Your task to perform on an android device: refresh tabs in the chrome app Image 0: 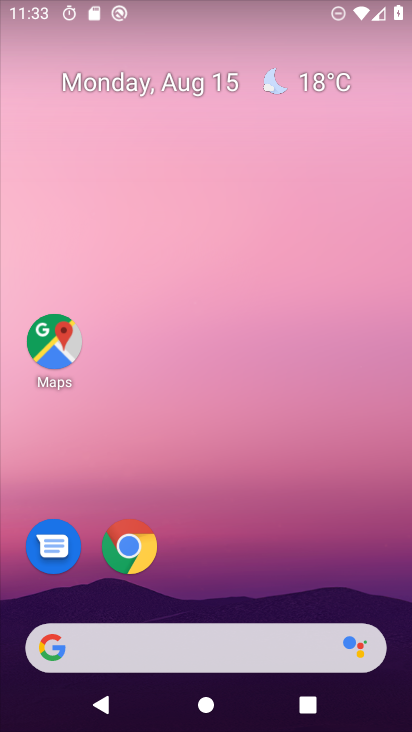
Step 0: click (137, 549)
Your task to perform on an android device: refresh tabs in the chrome app Image 1: 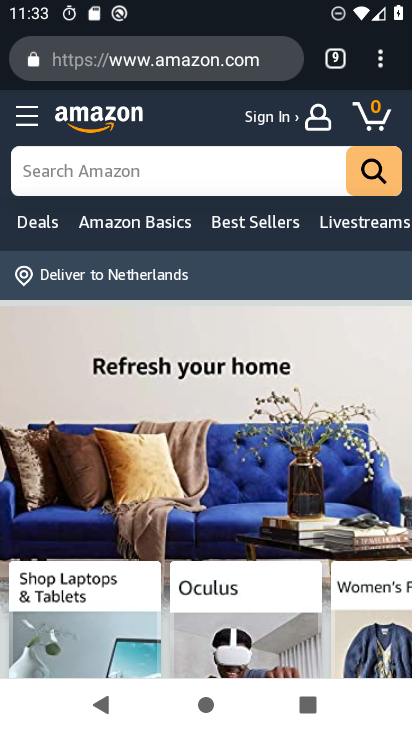
Step 1: click (383, 68)
Your task to perform on an android device: refresh tabs in the chrome app Image 2: 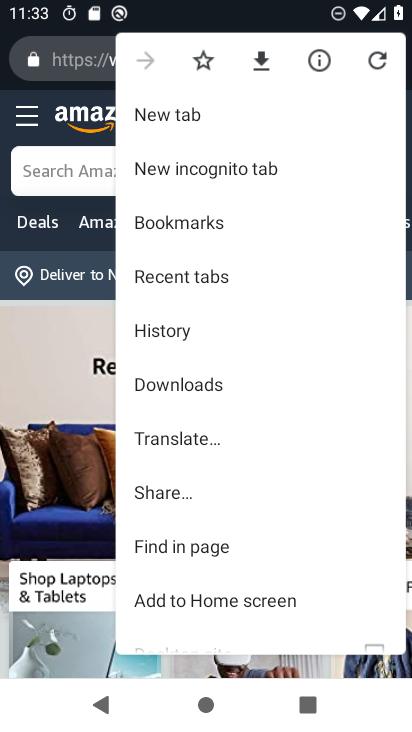
Step 2: click (375, 50)
Your task to perform on an android device: refresh tabs in the chrome app Image 3: 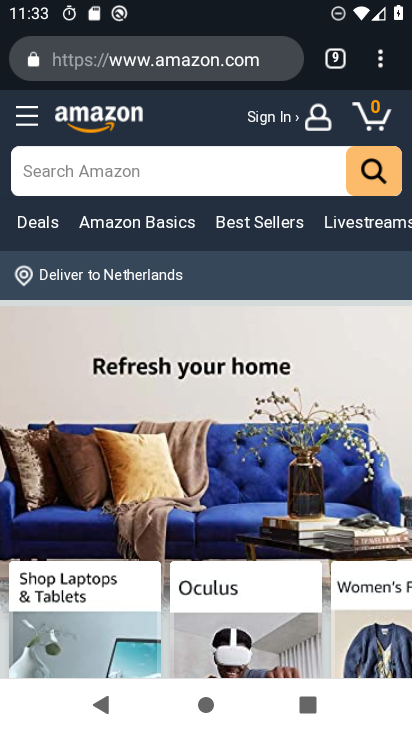
Step 3: task complete